Your task to perform on an android device: Add "razer huntsman" to the cart on costco, then select checkout. Image 0: 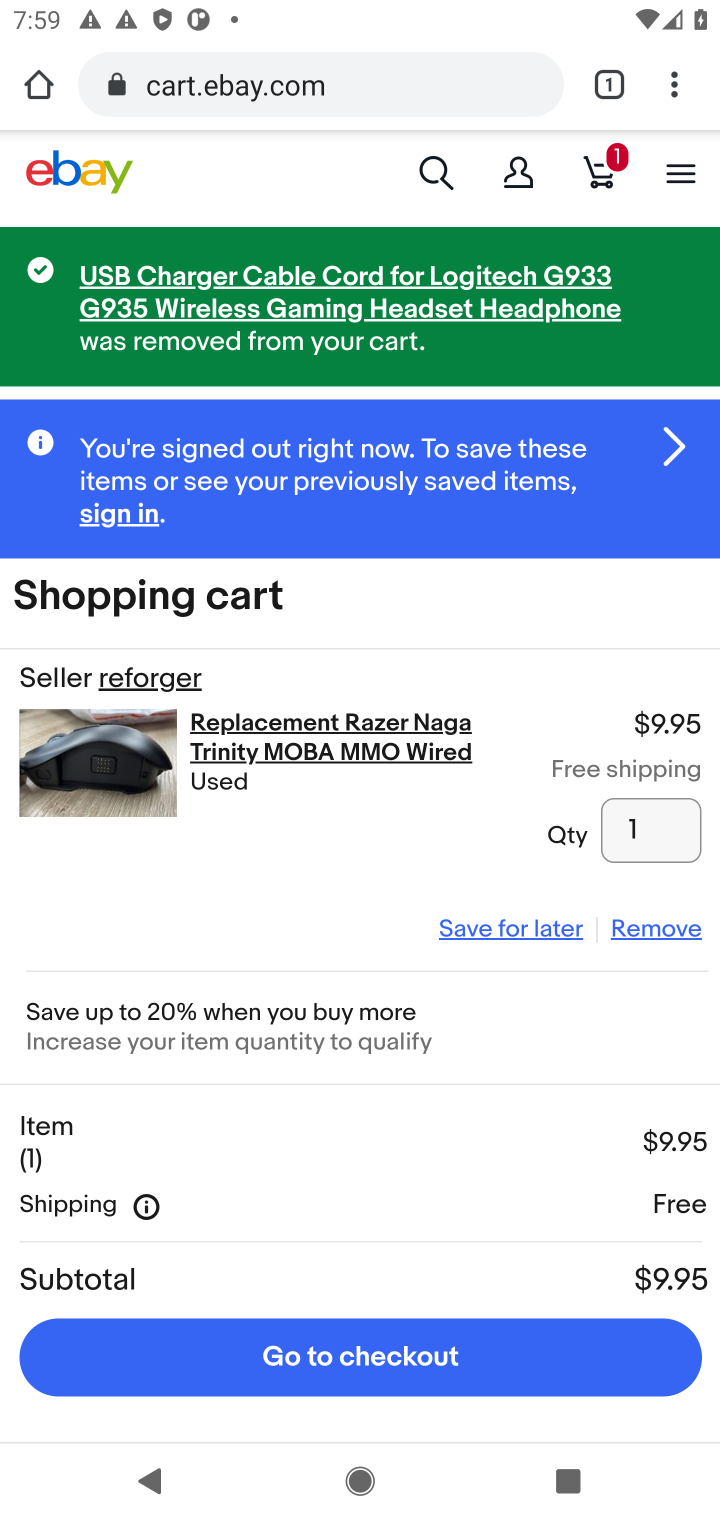
Step 0: click (397, 64)
Your task to perform on an android device: Add "razer huntsman" to the cart on costco, then select checkout. Image 1: 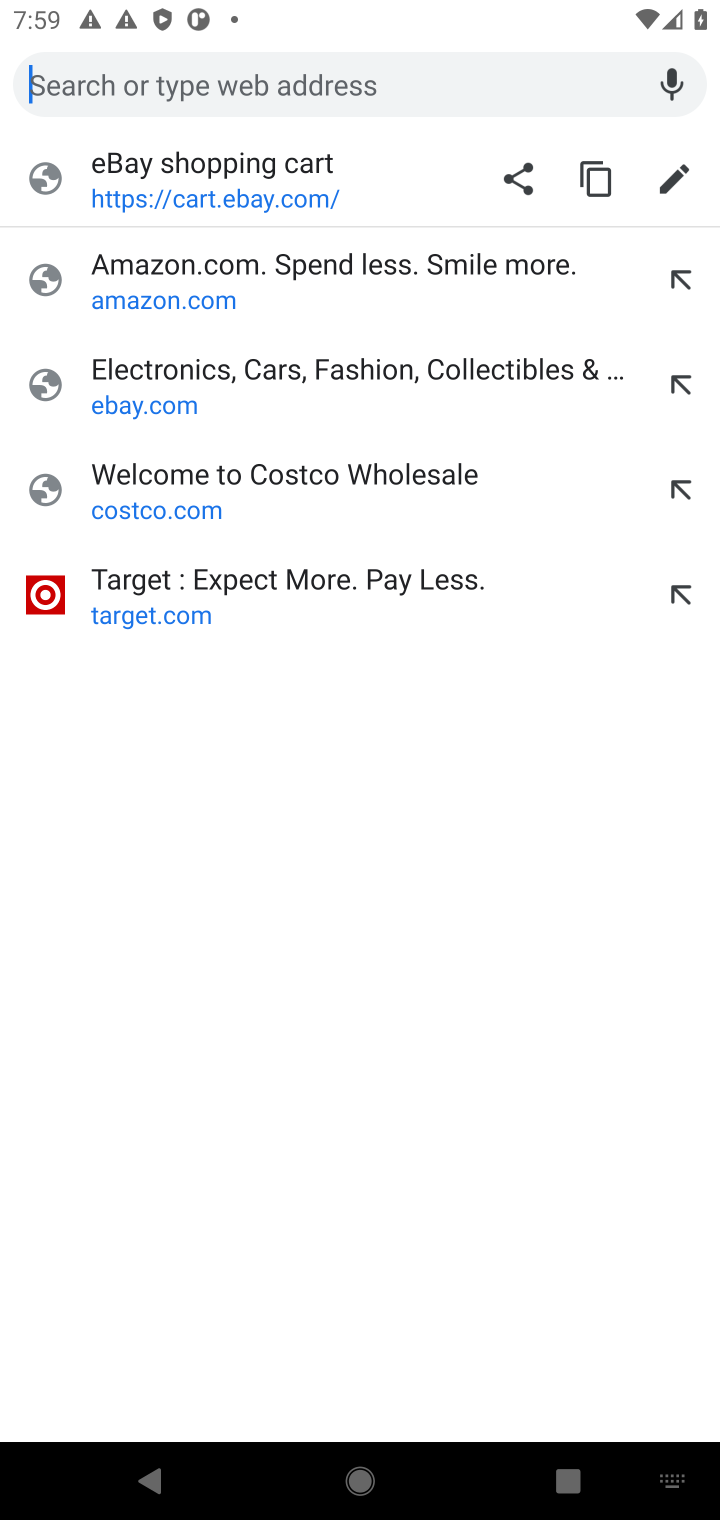
Step 1: type "costco"
Your task to perform on an android device: Add "razer huntsman" to the cart on costco, then select checkout. Image 2: 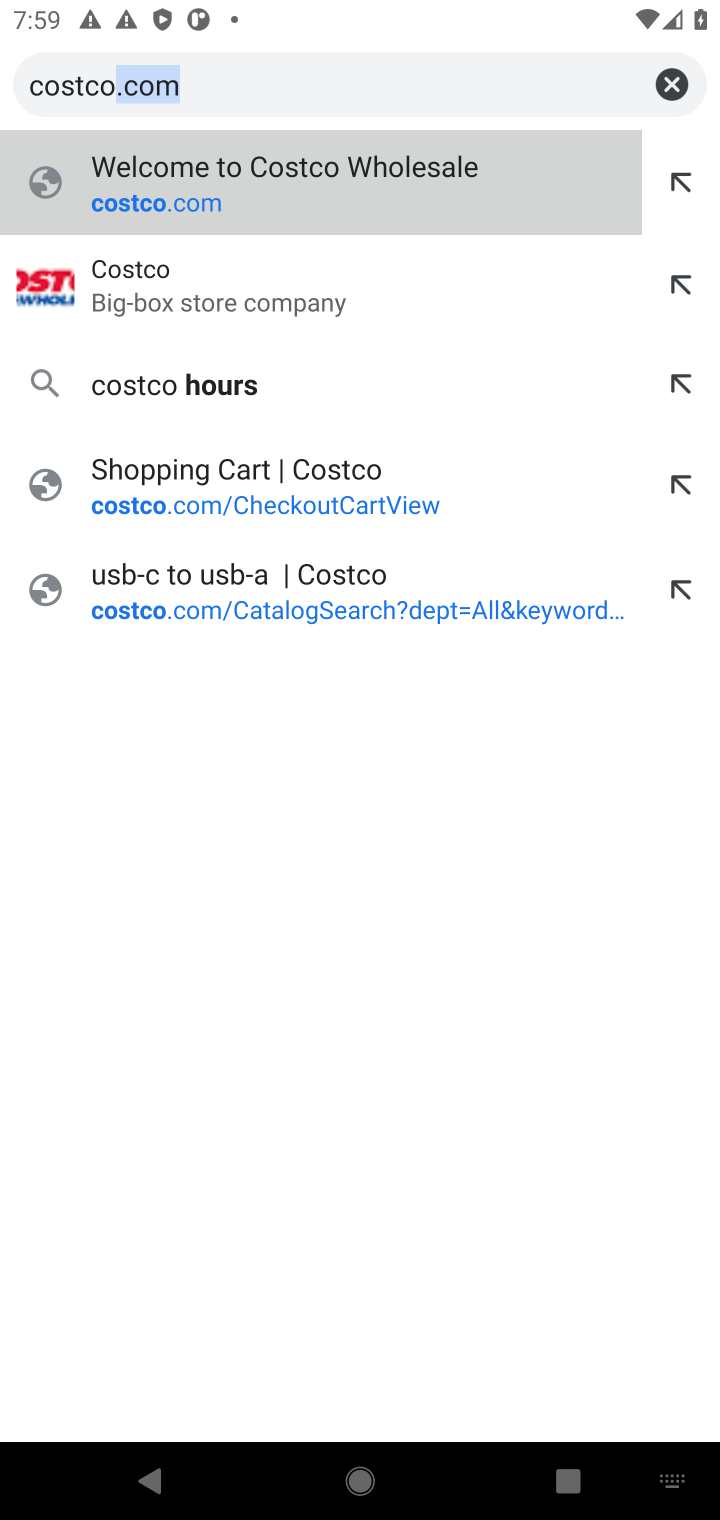
Step 2: press enter
Your task to perform on an android device: Add "razer huntsman" to the cart on costco, then select checkout. Image 3: 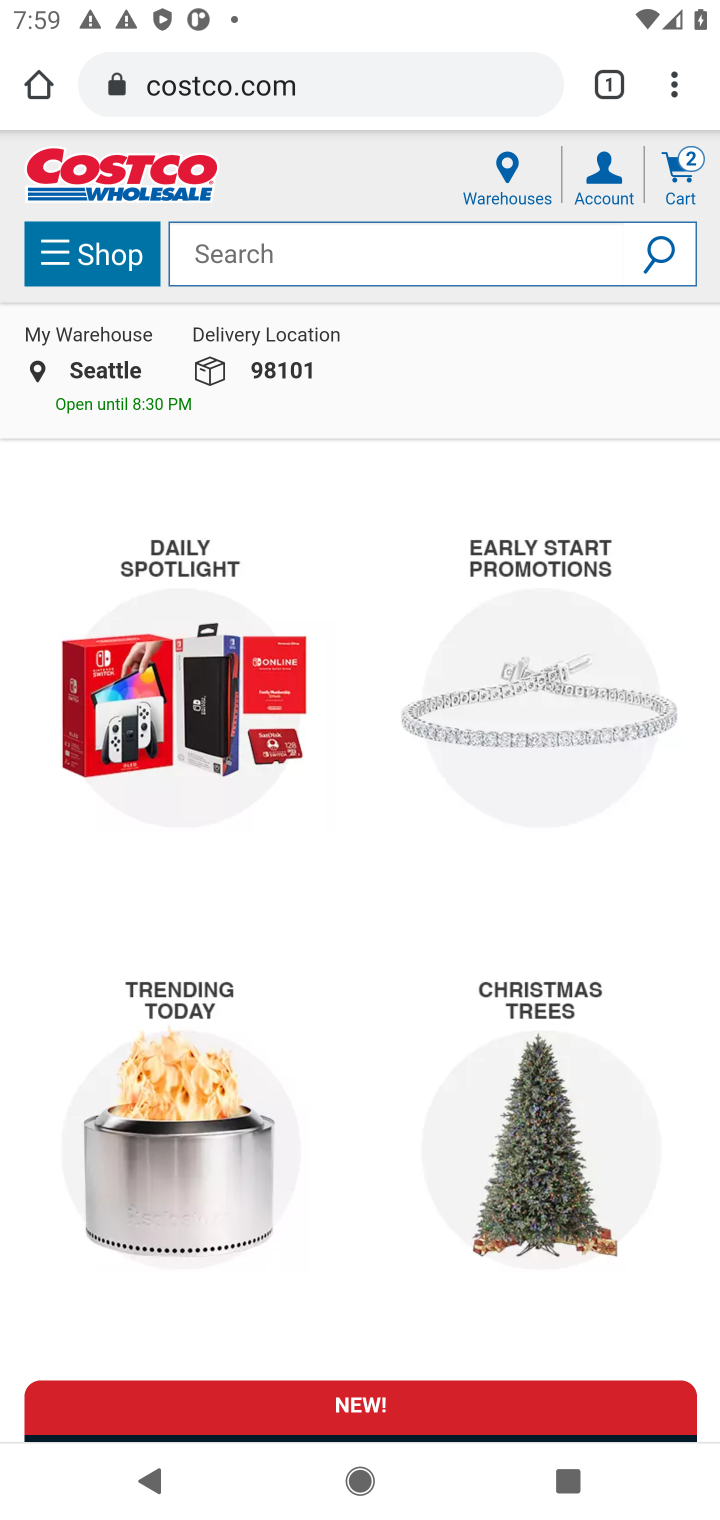
Step 3: click (364, 254)
Your task to perform on an android device: Add "razer huntsman" to the cart on costco, then select checkout. Image 4: 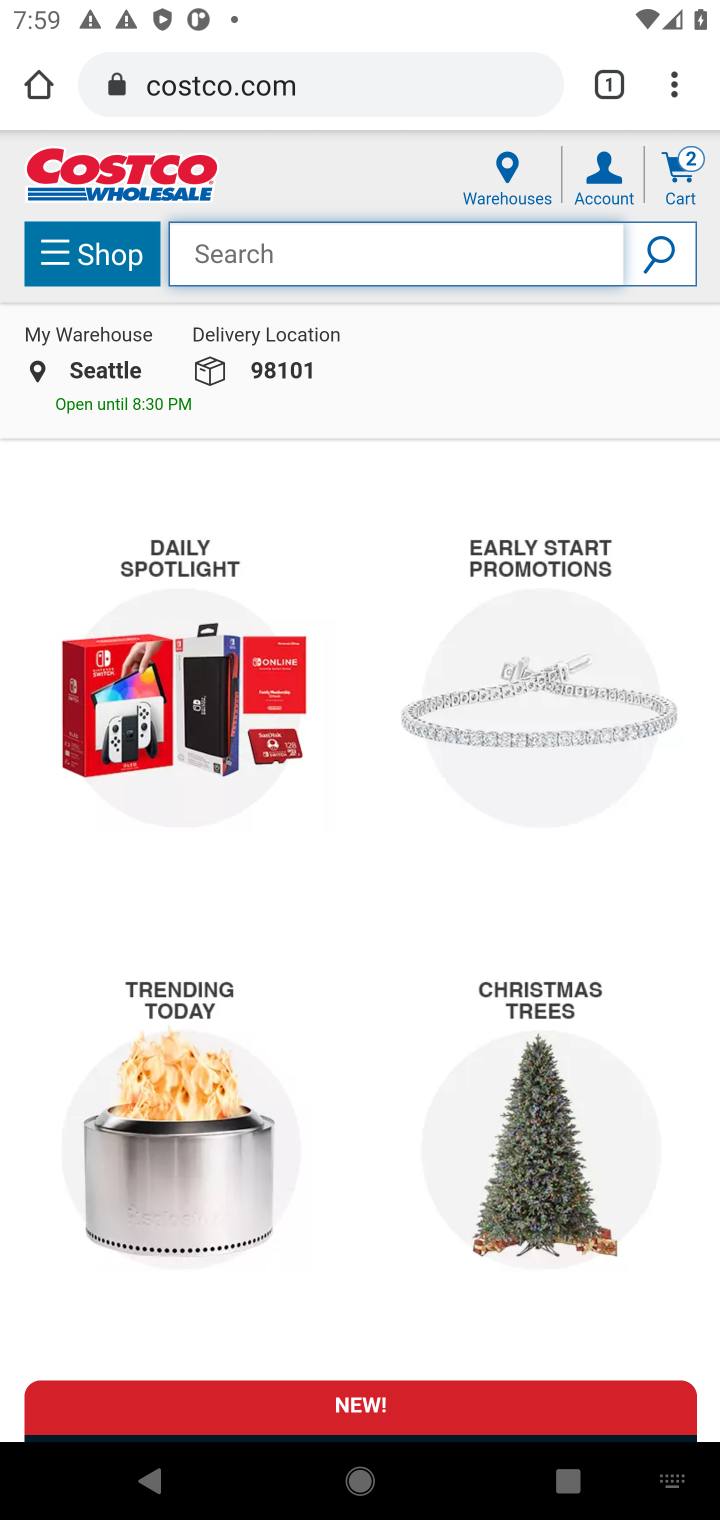
Step 4: type "razer huntsman"
Your task to perform on an android device: Add "razer huntsman" to the cart on costco, then select checkout. Image 5: 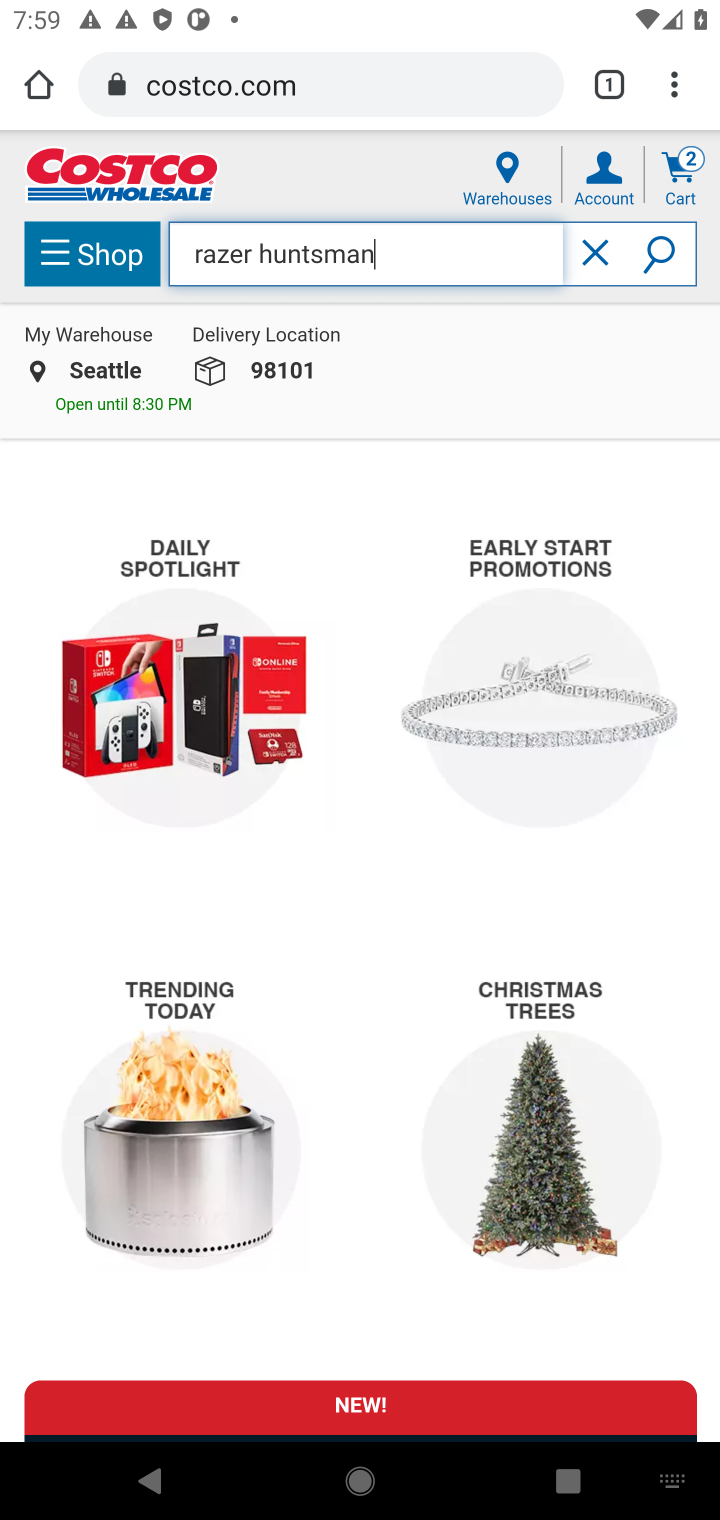
Step 5: press enter
Your task to perform on an android device: Add "razer huntsman" to the cart on costco, then select checkout. Image 6: 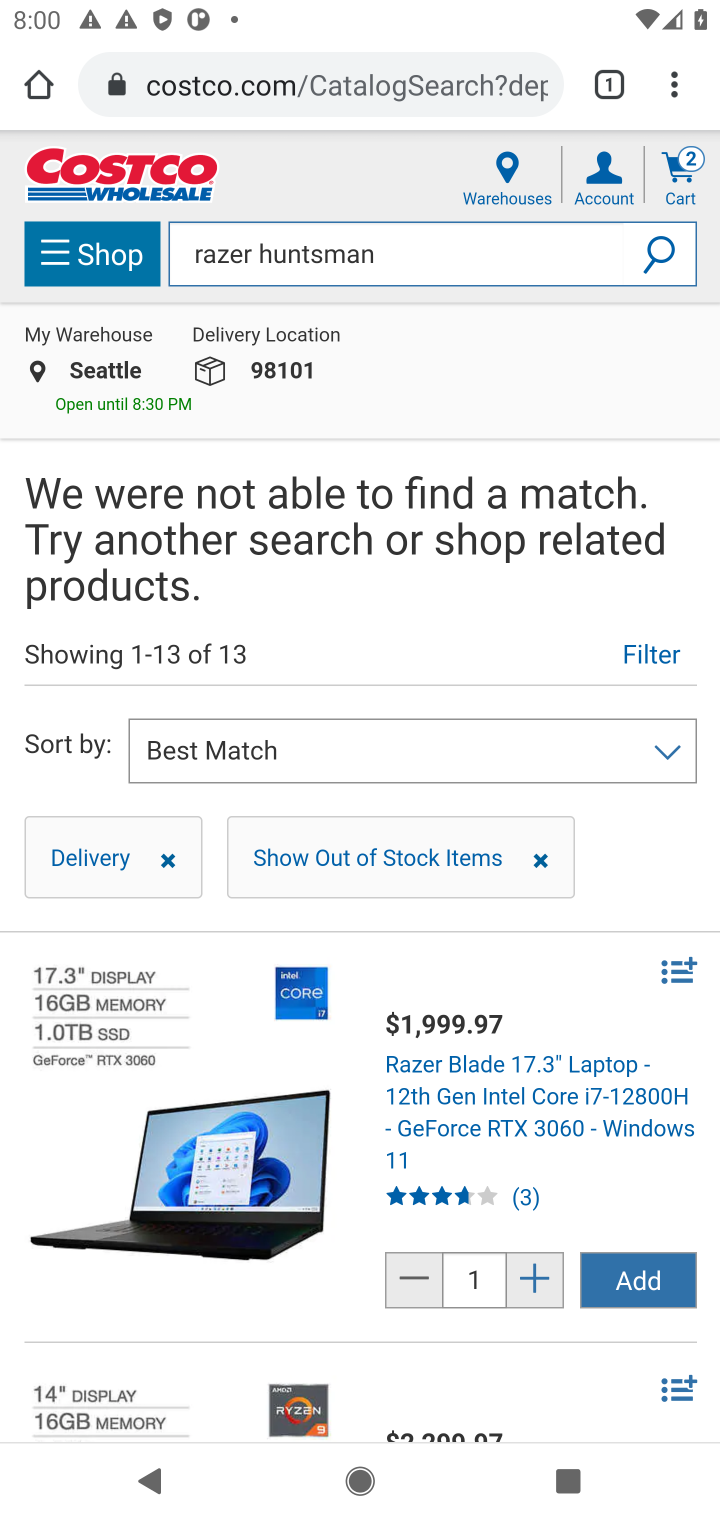
Step 6: task complete